Your task to perform on an android device: stop showing notifications on the lock screen Image 0: 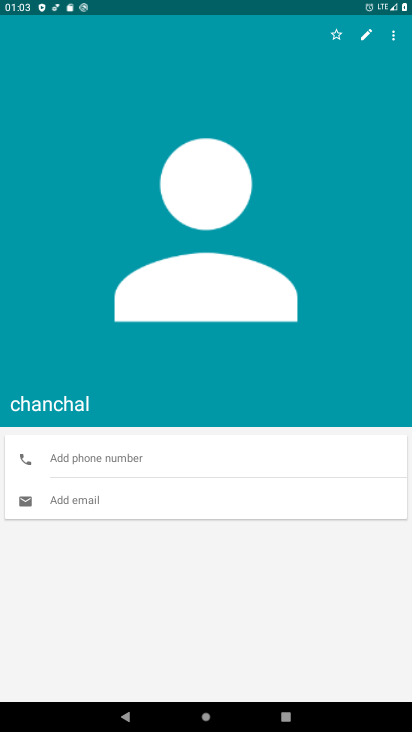
Step 0: press home button
Your task to perform on an android device: stop showing notifications on the lock screen Image 1: 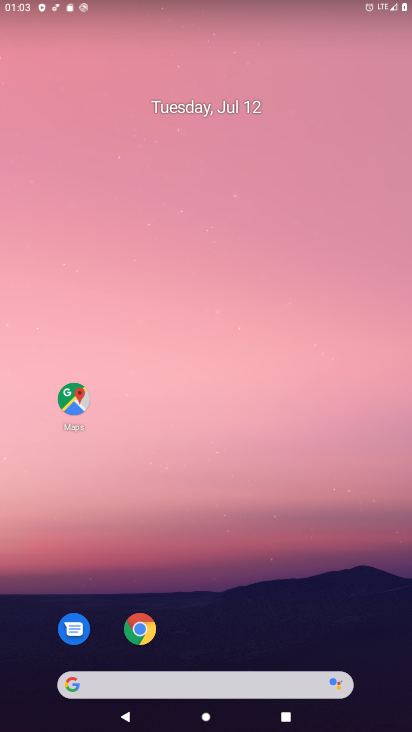
Step 1: drag from (33, 699) to (317, 57)
Your task to perform on an android device: stop showing notifications on the lock screen Image 2: 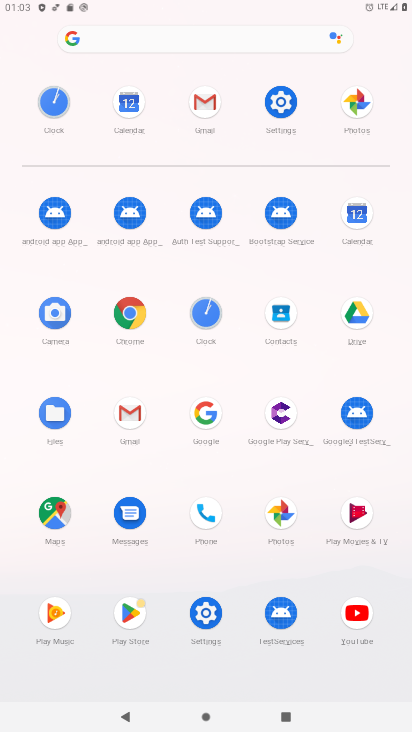
Step 2: click (221, 625)
Your task to perform on an android device: stop showing notifications on the lock screen Image 3: 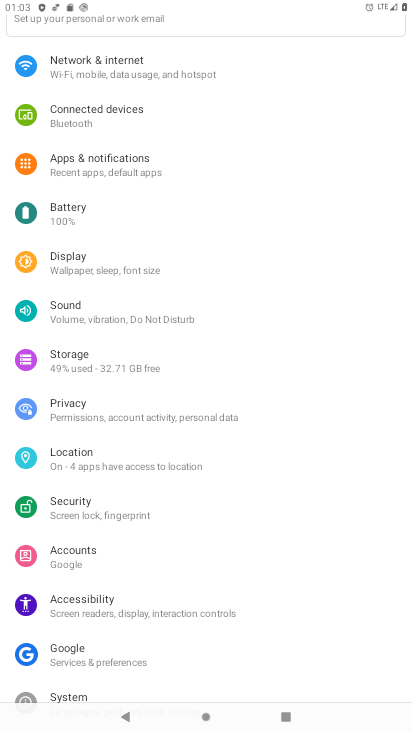
Step 3: click (118, 166)
Your task to perform on an android device: stop showing notifications on the lock screen Image 4: 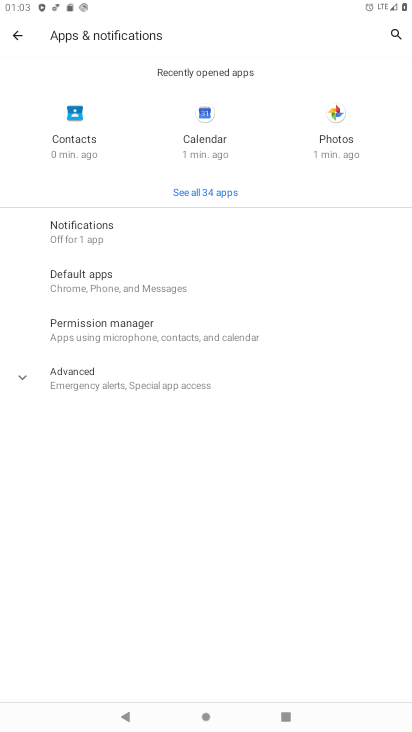
Step 4: click (111, 214)
Your task to perform on an android device: stop showing notifications on the lock screen Image 5: 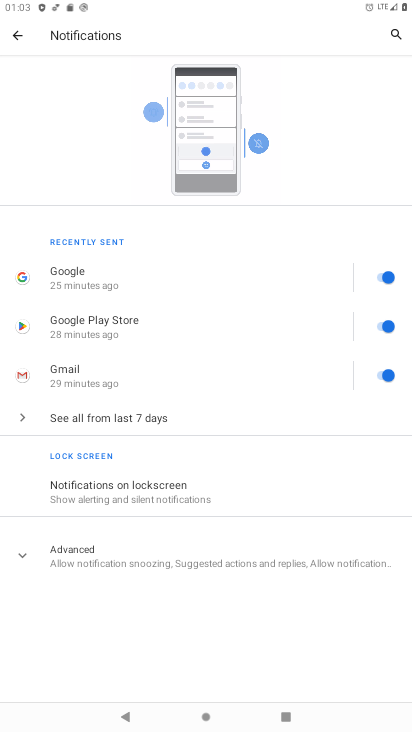
Step 5: click (134, 495)
Your task to perform on an android device: stop showing notifications on the lock screen Image 6: 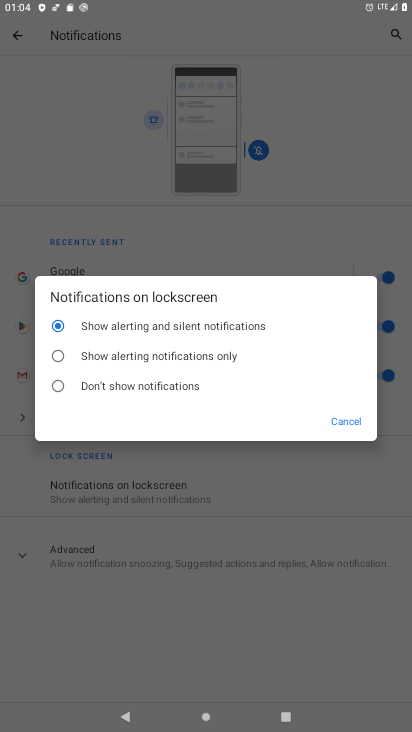
Step 6: click (62, 388)
Your task to perform on an android device: stop showing notifications on the lock screen Image 7: 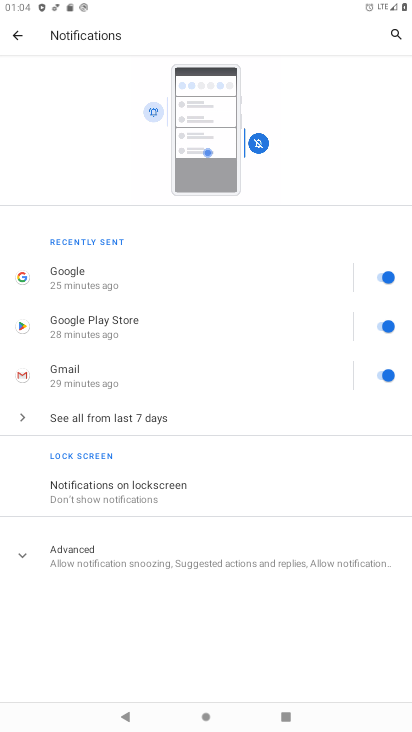
Step 7: task complete